Your task to perform on an android device: Show the shopping cart on newegg.com. Search for "usb-a" on newegg.com, select the first entry, add it to the cart, then select checkout. Image 0: 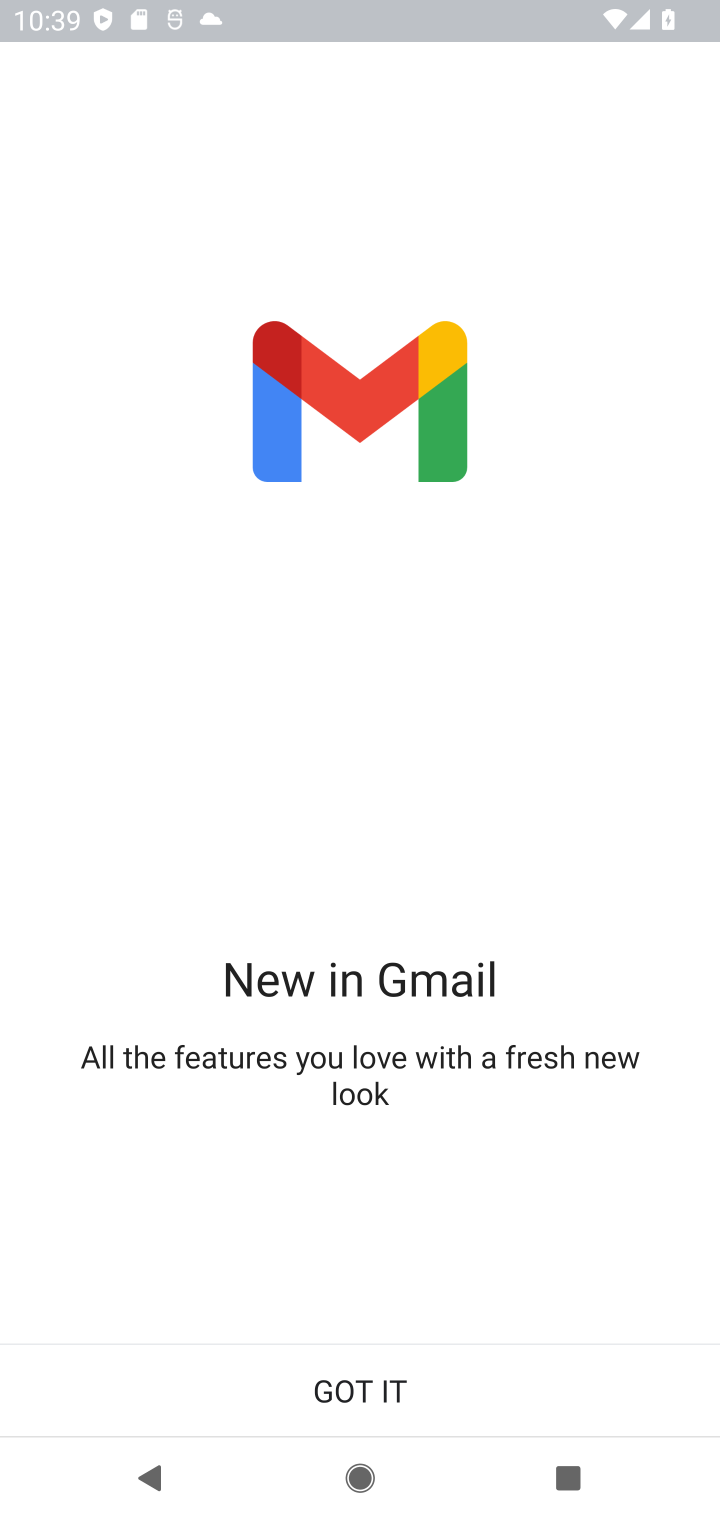
Step 0: press home button
Your task to perform on an android device: Show the shopping cart on newegg.com. Search for "usb-a" on newegg.com, select the first entry, add it to the cart, then select checkout. Image 1: 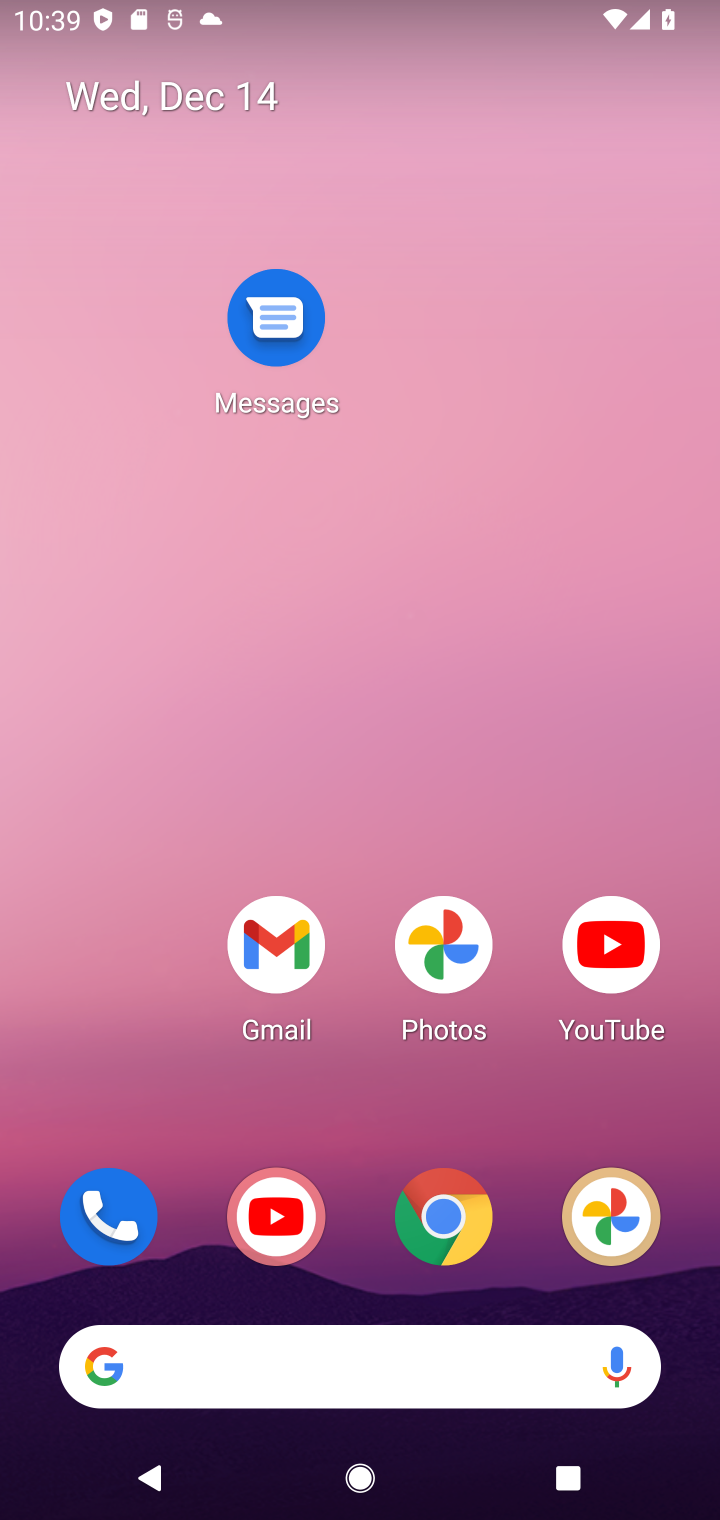
Step 1: drag from (280, 1326) to (216, 431)
Your task to perform on an android device: Show the shopping cart on newegg.com. Search for "usb-a" on newegg.com, select the first entry, add it to the cart, then select checkout. Image 2: 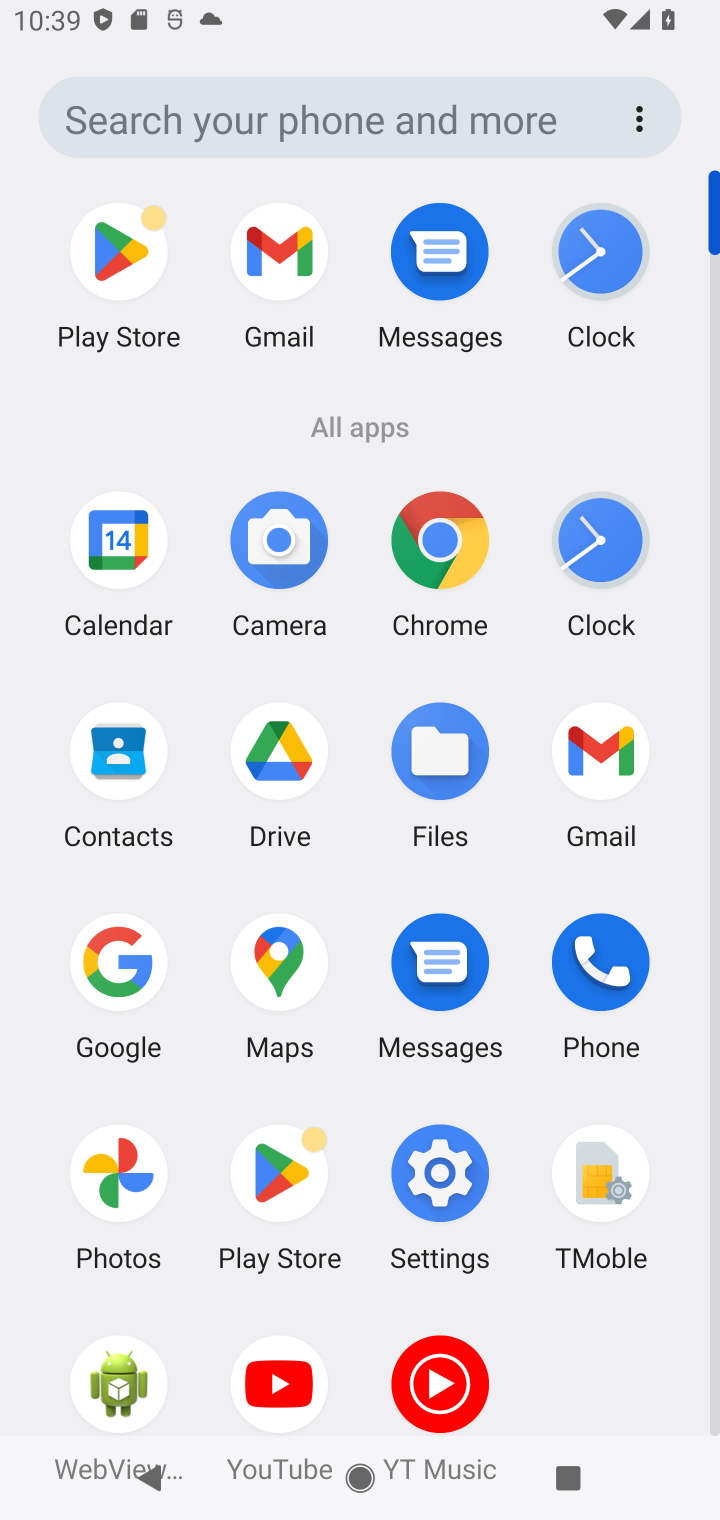
Step 2: click (118, 973)
Your task to perform on an android device: Show the shopping cart on newegg.com. Search for "usb-a" on newegg.com, select the first entry, add it to the cart, then select checkout. Image 3: 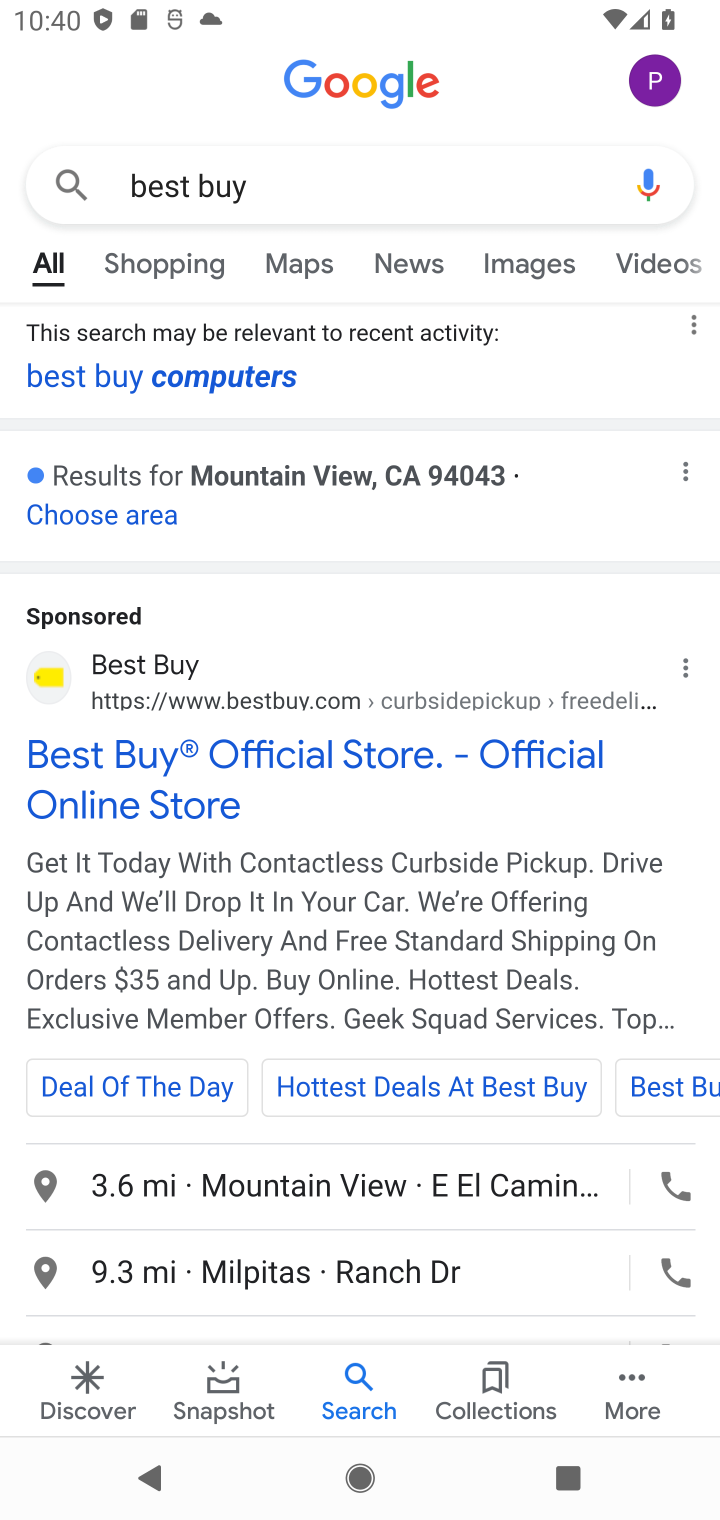
Step 3: click (287, 167)
Your task to perform on an android device: Show the shopping cart on newegg.com. Search for "usb-a" on newegg.com, select the first entry, add it to the cart, then select checkout. Image 4: 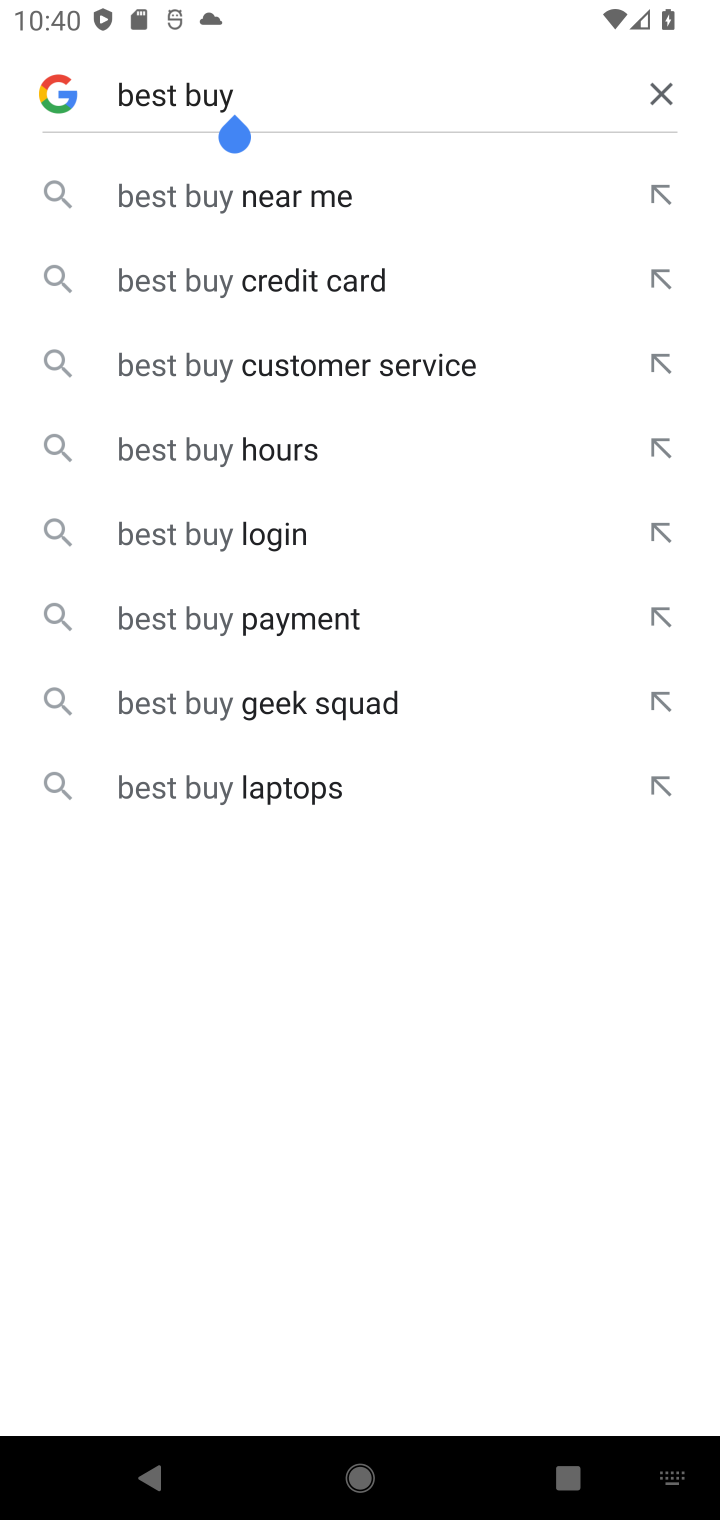
Step 4: click (658, 108)
Your task to perform on an android device: Show the shopping cart on newegg.com. Search for "usb-a" on newegg.com, select the first entry, add it to the cart, then select checkout. Image 5: 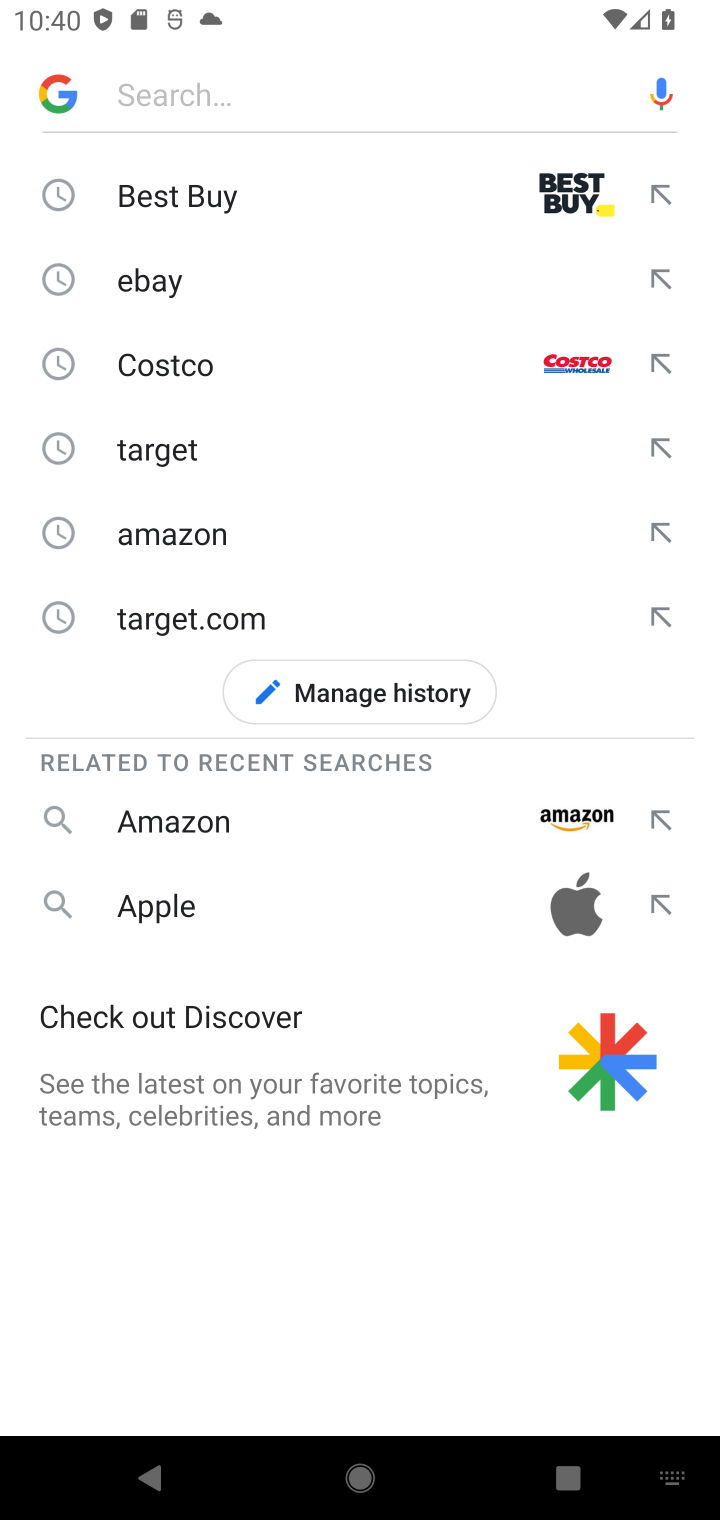
Step 5: type "newegg.com"
Your task to perform on an android device: Show the shopping cart on newegg.com. Search for "usb-a" on newegg.com, select the first entry, add it to the cart, then select checkout. Image 6: 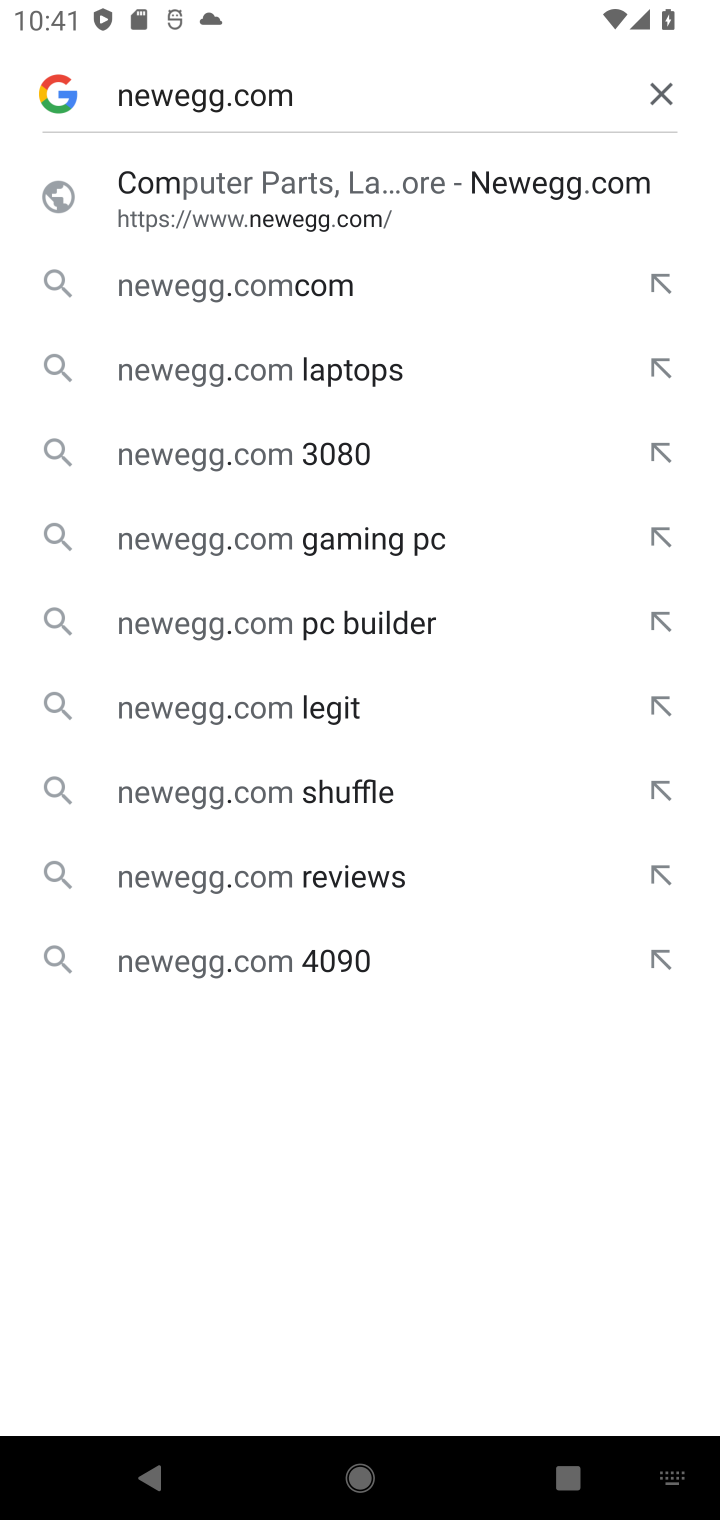
Step 6: click (169, 199)
Your task to perform on an android device: Show the shopping cart on newegg.com. Search for "usb-a" on newegg.com, select the first entry, add it to the cart, then select checkout. Image 7: 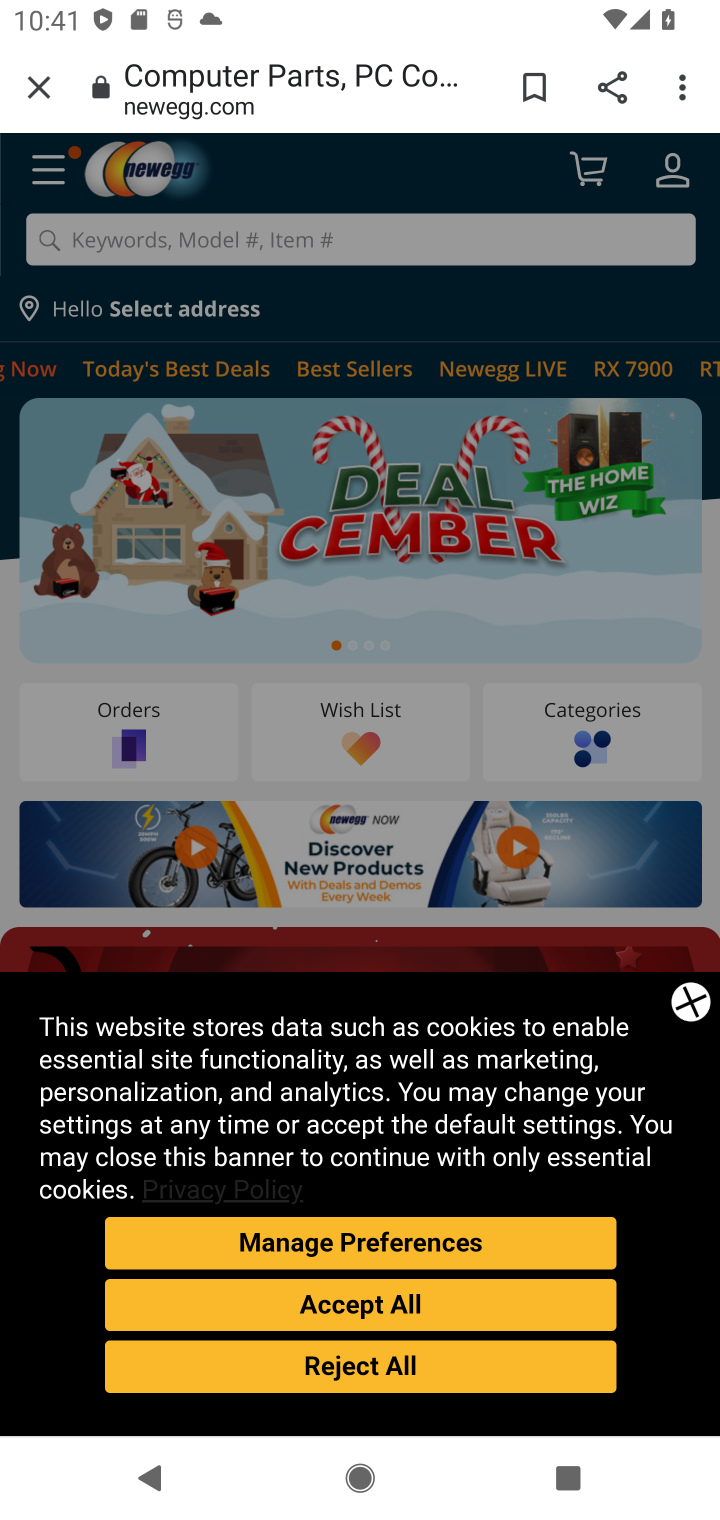
Step 7: click (596, 165)
Your task to perform on an android device: Show the shopping cart on newegg.com. Search for "usb-a" on newegg.com, select the first entry, add it to the cart, then select checkout. Image 8: 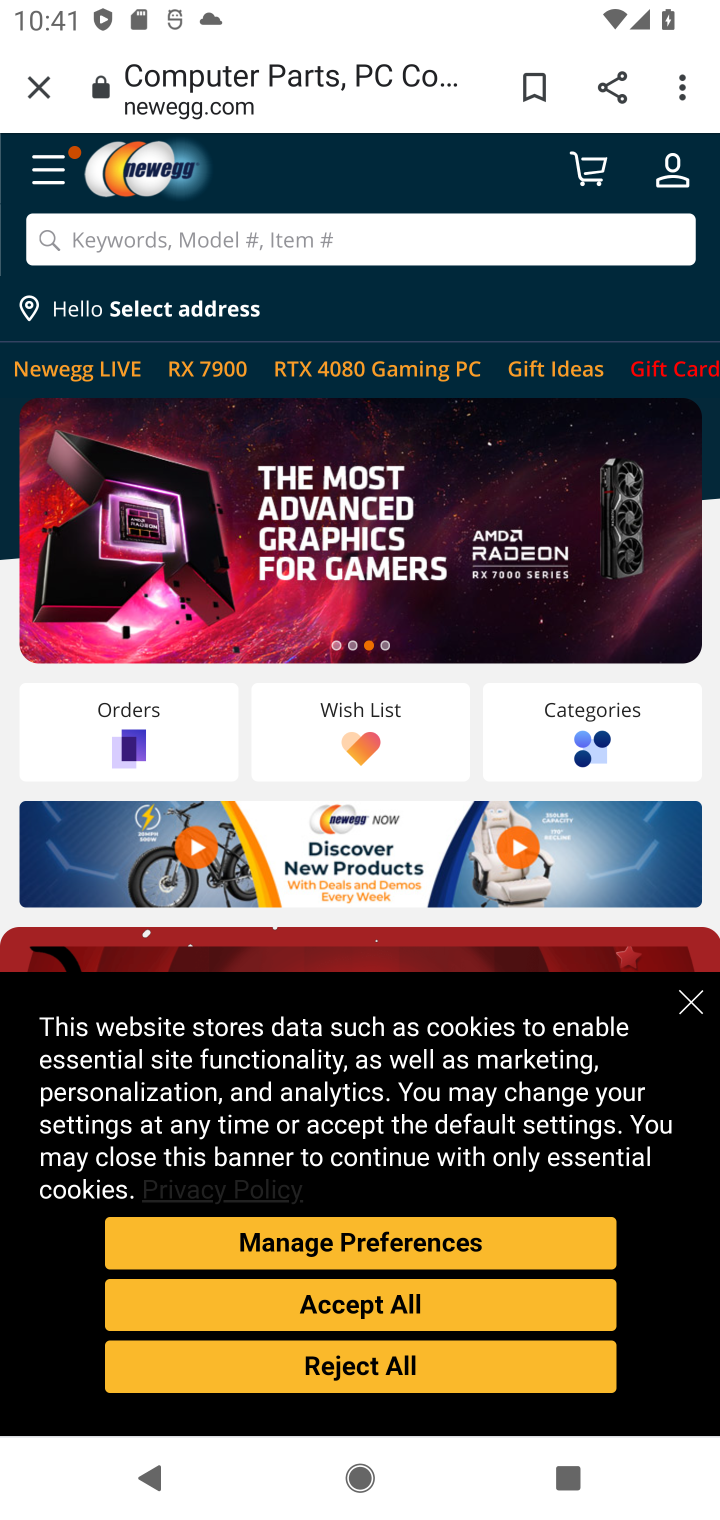
Step 8: click (129, 222)
Your task to perform on an android device: Show the shopping cart on newegg.com. Search for "usb-a" on newegg.com, select the first entry, add it to the cart, then select checkout. Image 9: 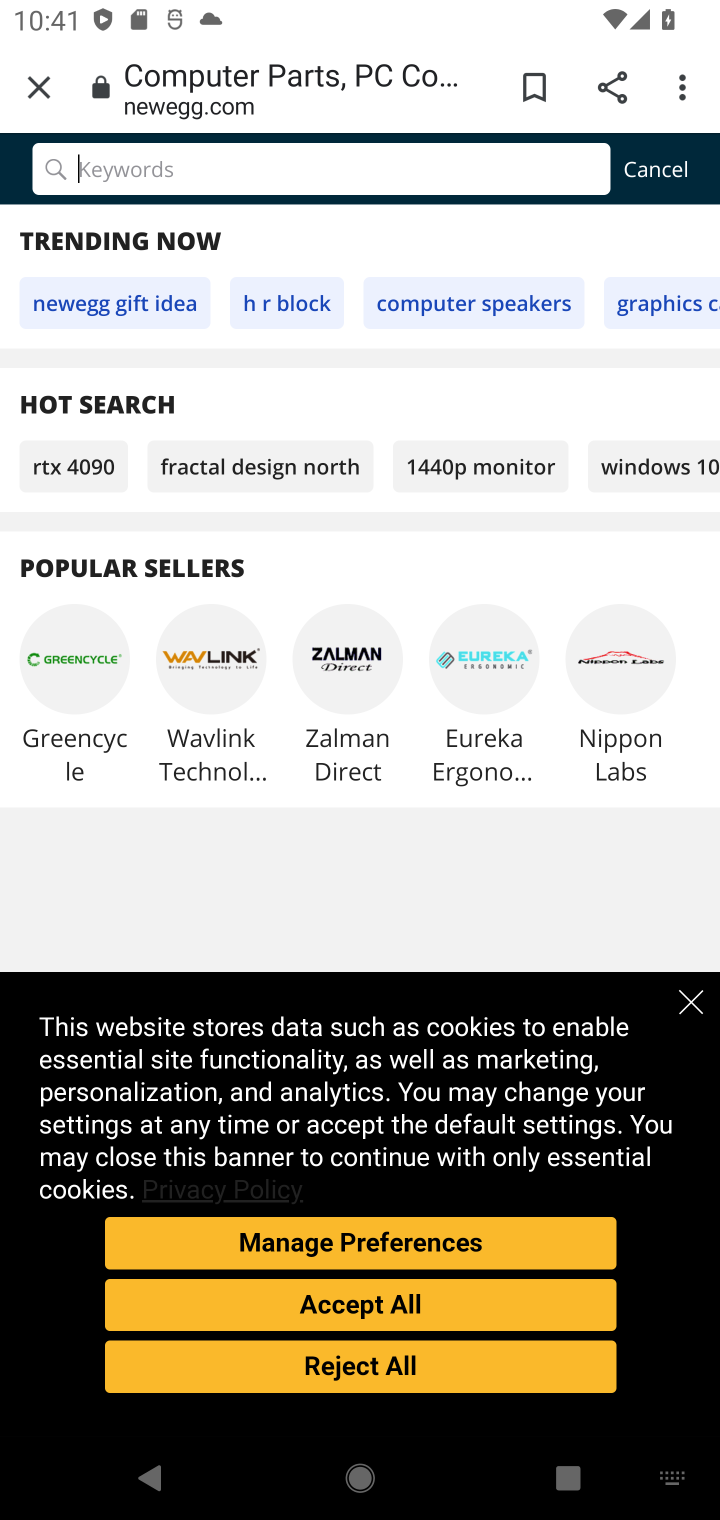
Step 9: type "usb-a"
Your task to perform on an android device: Show the shopping cart on newegg.com. Search for "usb-a" on newegg.com, select the first entry, add it to the cart, then select checkout. Image 10: 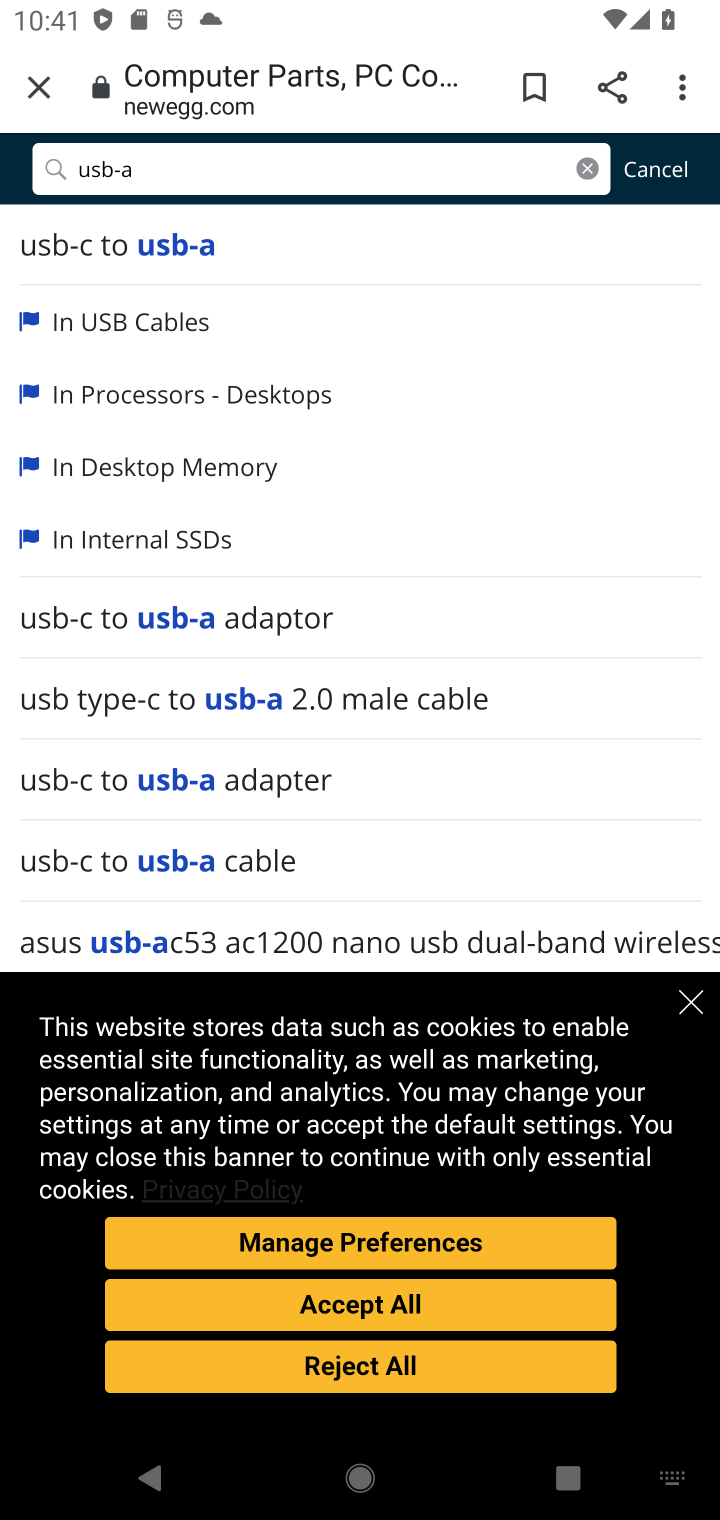
Step 10: click (144, 255)
Your task to perform on an android device: Show the shopping cart on newegg.com. Search for "usb-a" on newegg.com, select the first entry, add it to the cart, then select checkout. Image 11: 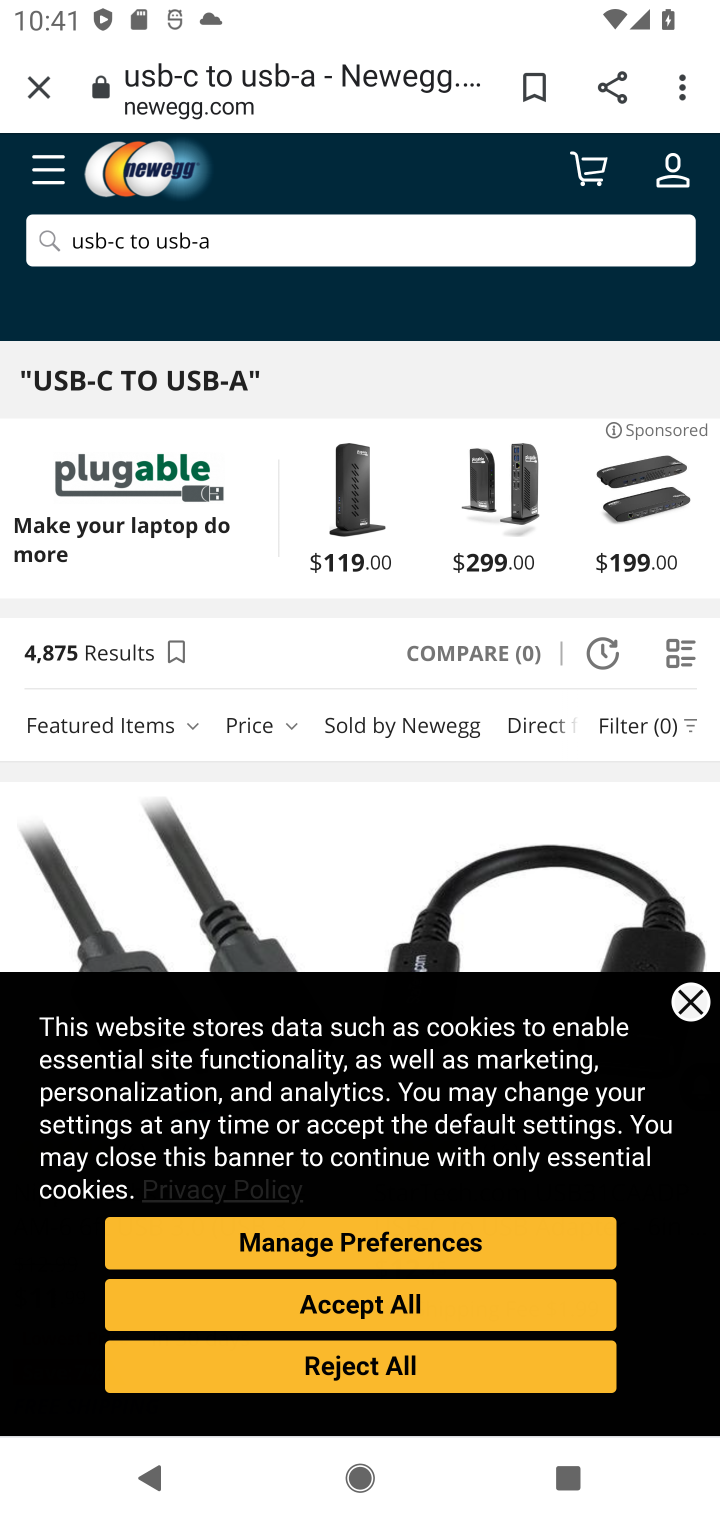
Step 11: drag from (214, 1271) to (252, 692)
Your task to perform on an android device: Show the shopping cart on newegg.com. Search for "usb-a" on newegg.com, select the first entry, add it to the cart, then select checkout. Image 12: 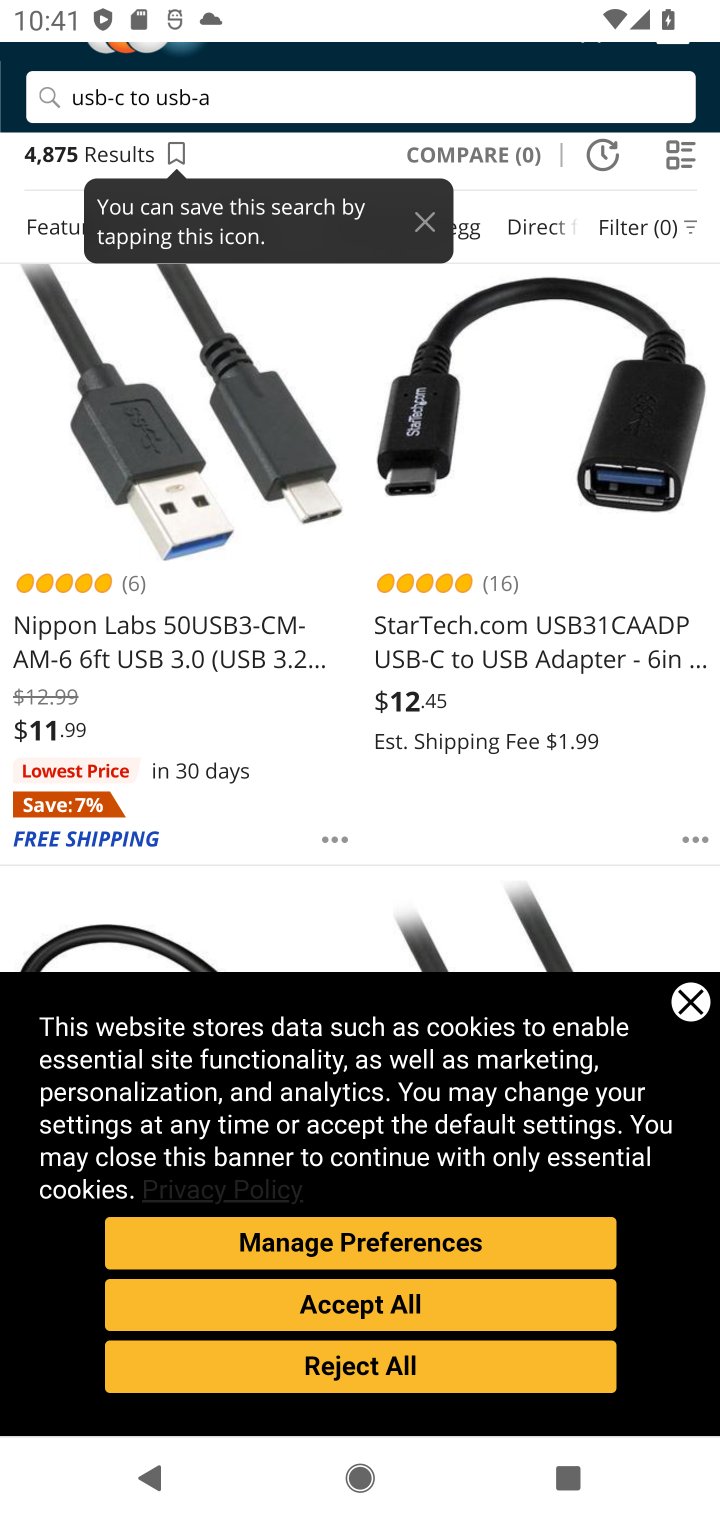
Step 12: click (703, 1003)
Your task to perform on an android device: Show the shopping cart on newegg.com. Search for "usb-a" on newegg.com, select the first entry, add it to the cart, then select checkout. Image 13: 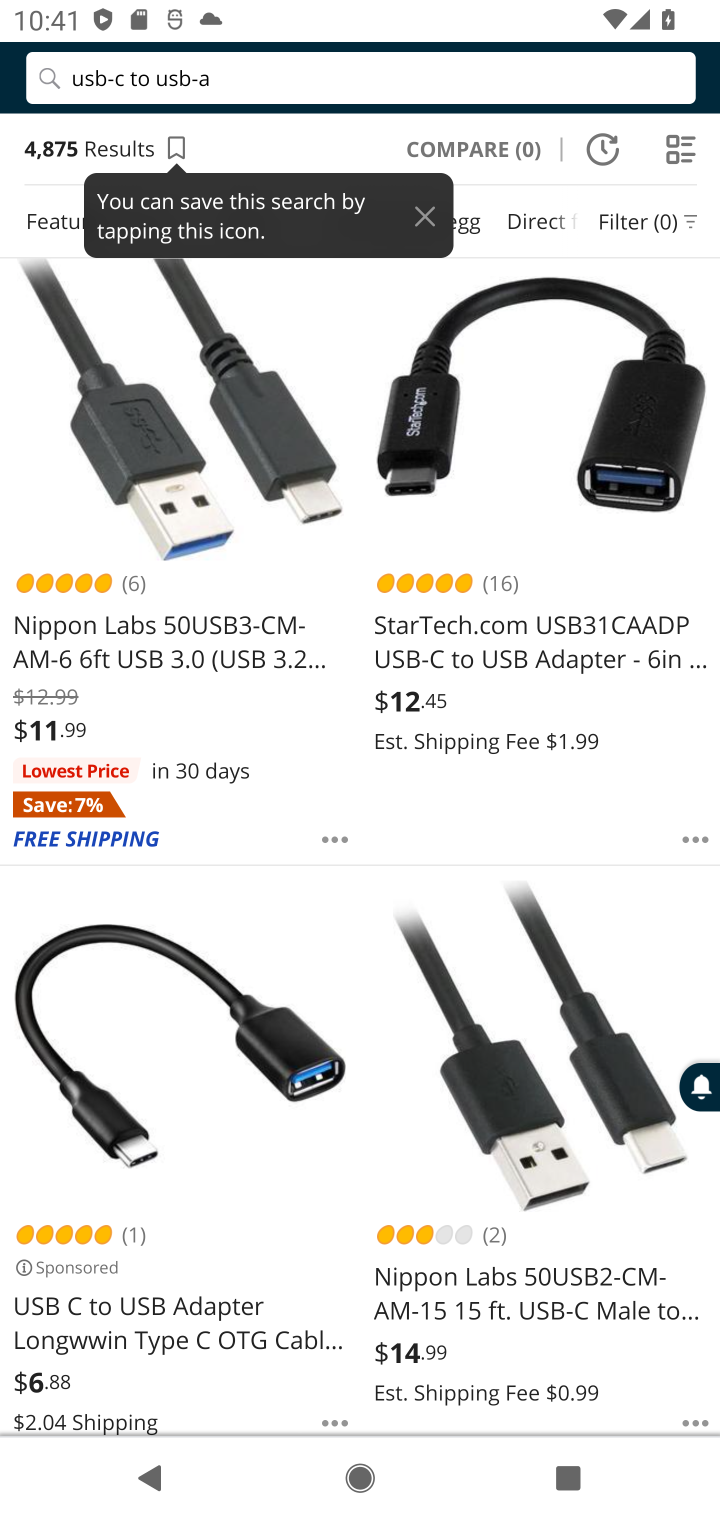
Step 13: click (223, 617)
Your task to perform on an android device: Show the shopping cart on newegg.com. Search for "usb-a" on newegg.com, select the first entry, add it to the cart, then select checkout. Image 14: 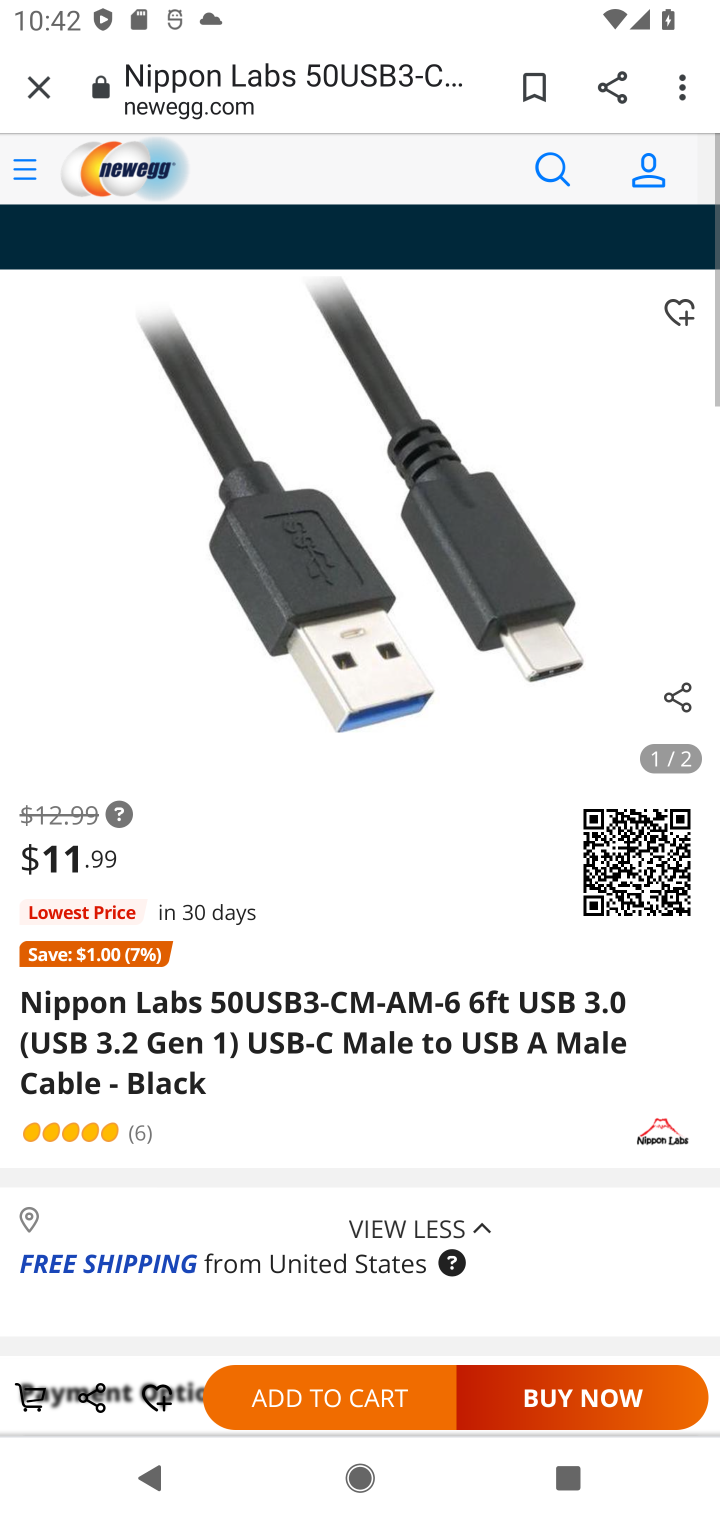
Step 14: drag from (374, 1182) to (400, 589)
Your task to perform on an android device: Show the shopping cart on newegg.com. Search for "usb-a" on newegg.com, select the first entry, add it to the cart, then select checkout. Image 15: 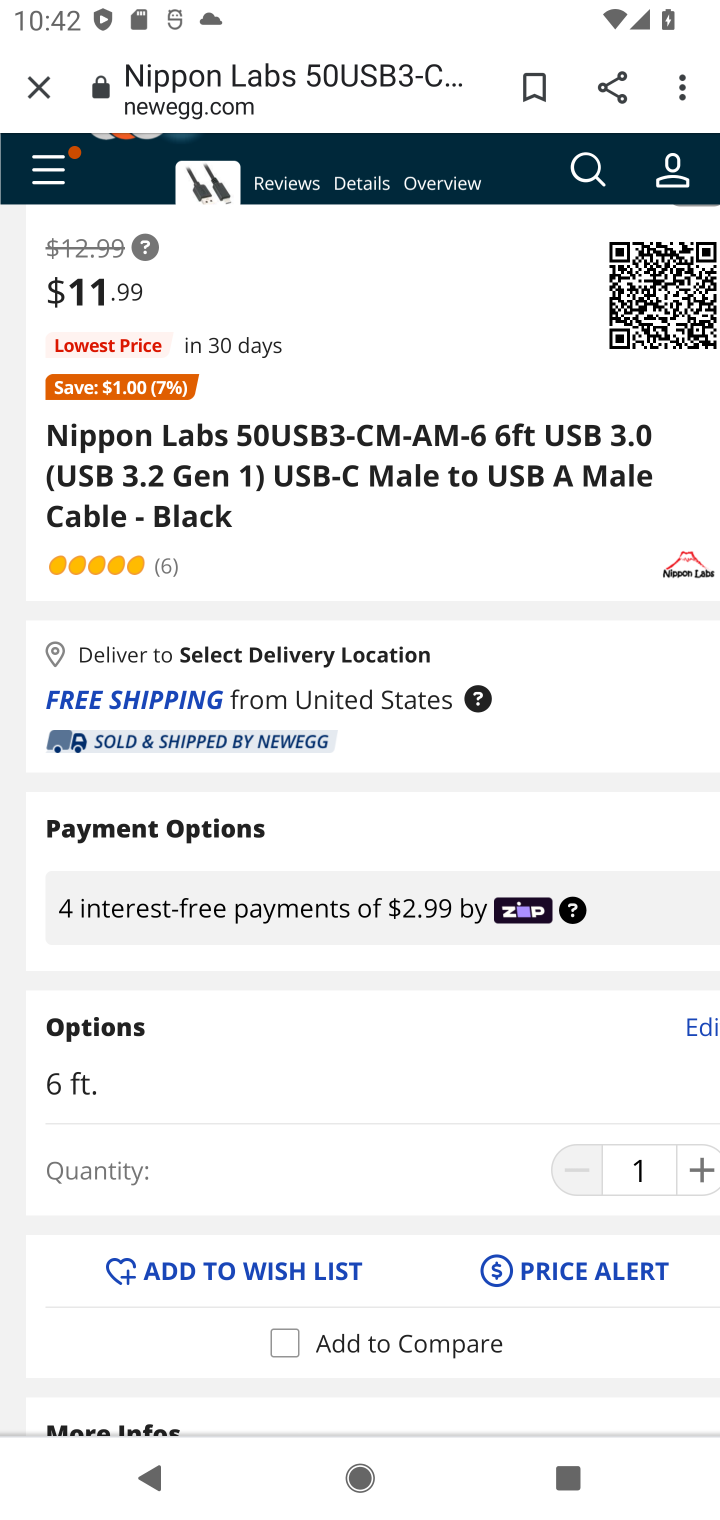
Step 15: click (333, 1399)
Your task to perform on an android device: Show the shopping cart on newegg.com. Search for "usb-a" on newegg.com, select the first entry, add it to the cart, then select checkout. Image 16: 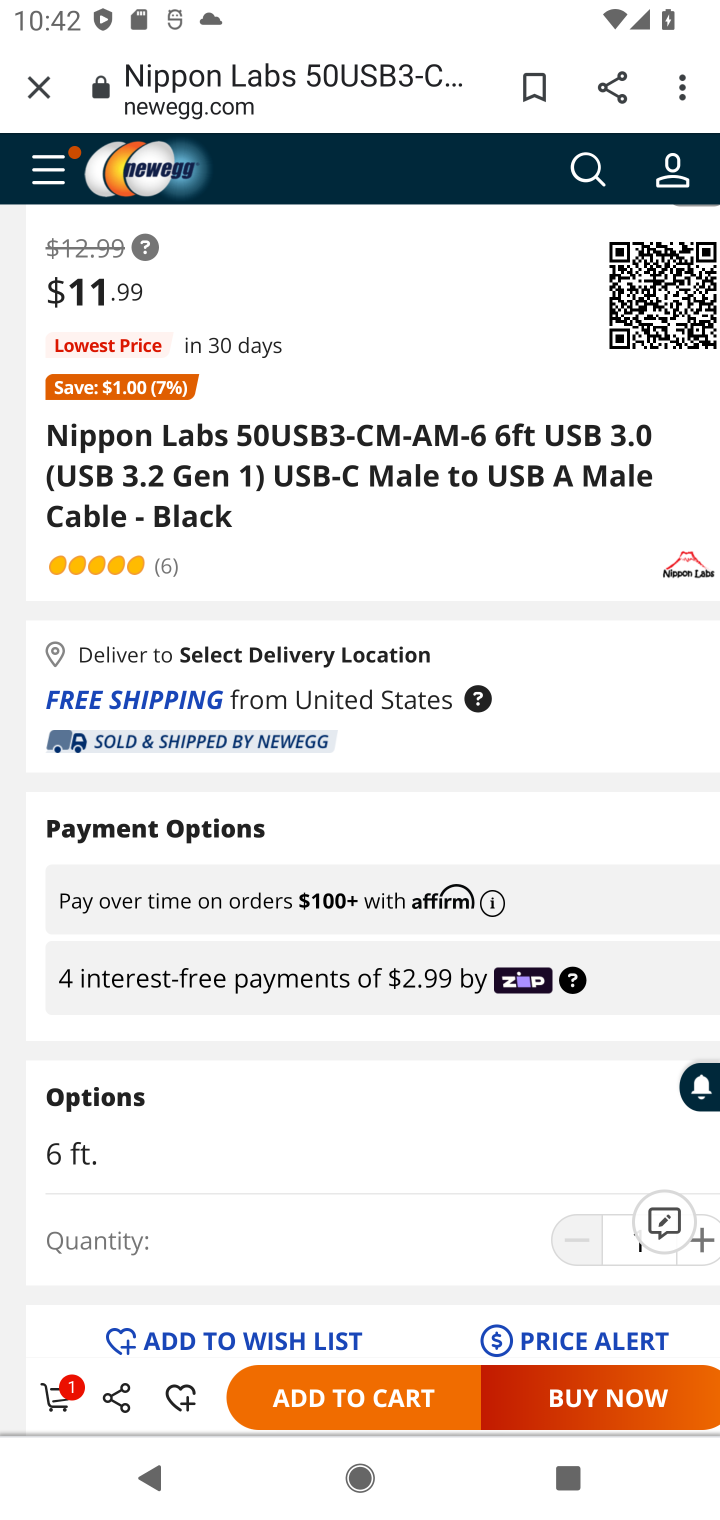
Step 16: click (60, 1399)
Your task to perform on an android device: Show the shopping cart on newegg.com. Search for "usb-a" on newegg.com, select the first entry, add it to the cart, then select checkout. Image 17: 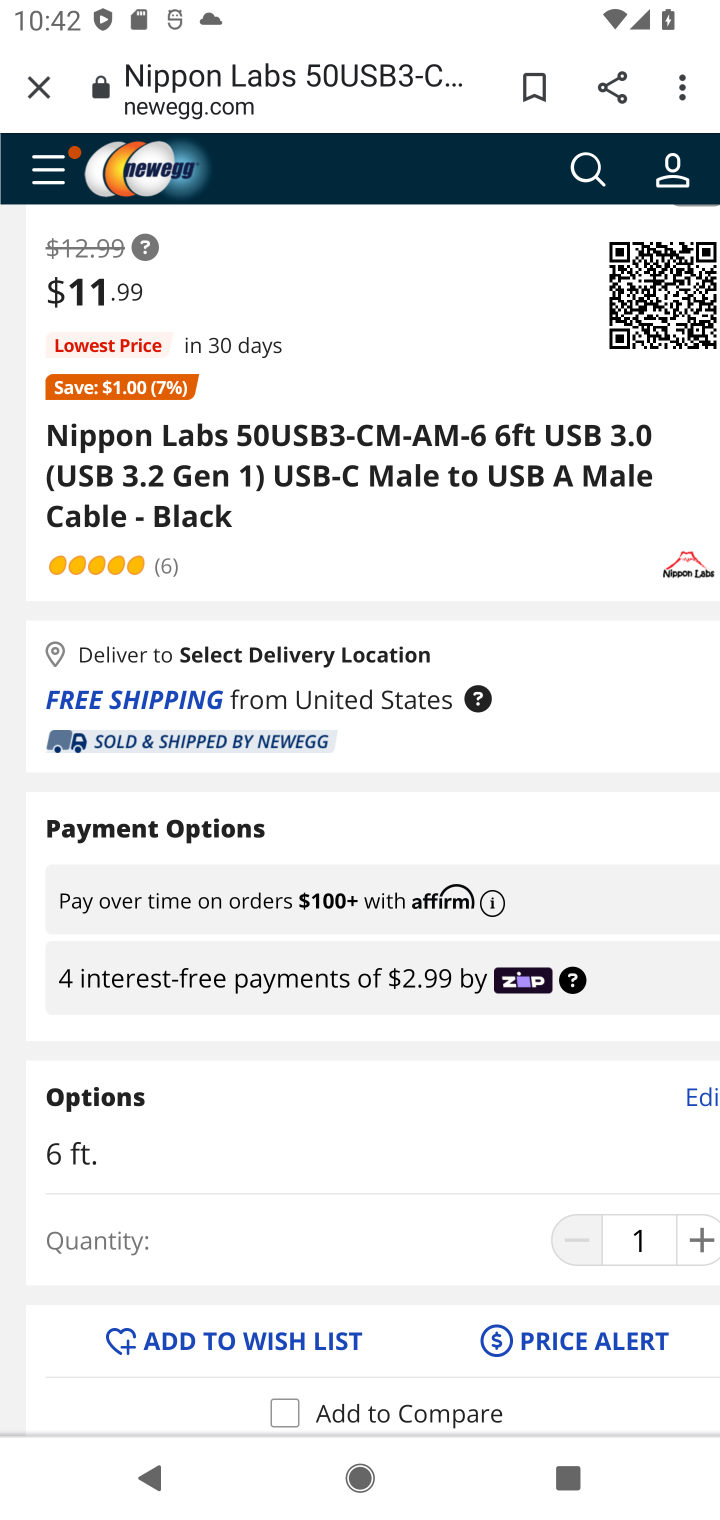
Step 17: click (56, 1394)
Your task to perform on an android device: Show the shopping cart on newegg.com. Search for "usb-a" on newegg.com, select the first entry, add it to the cart, then select checkout. Image 18: 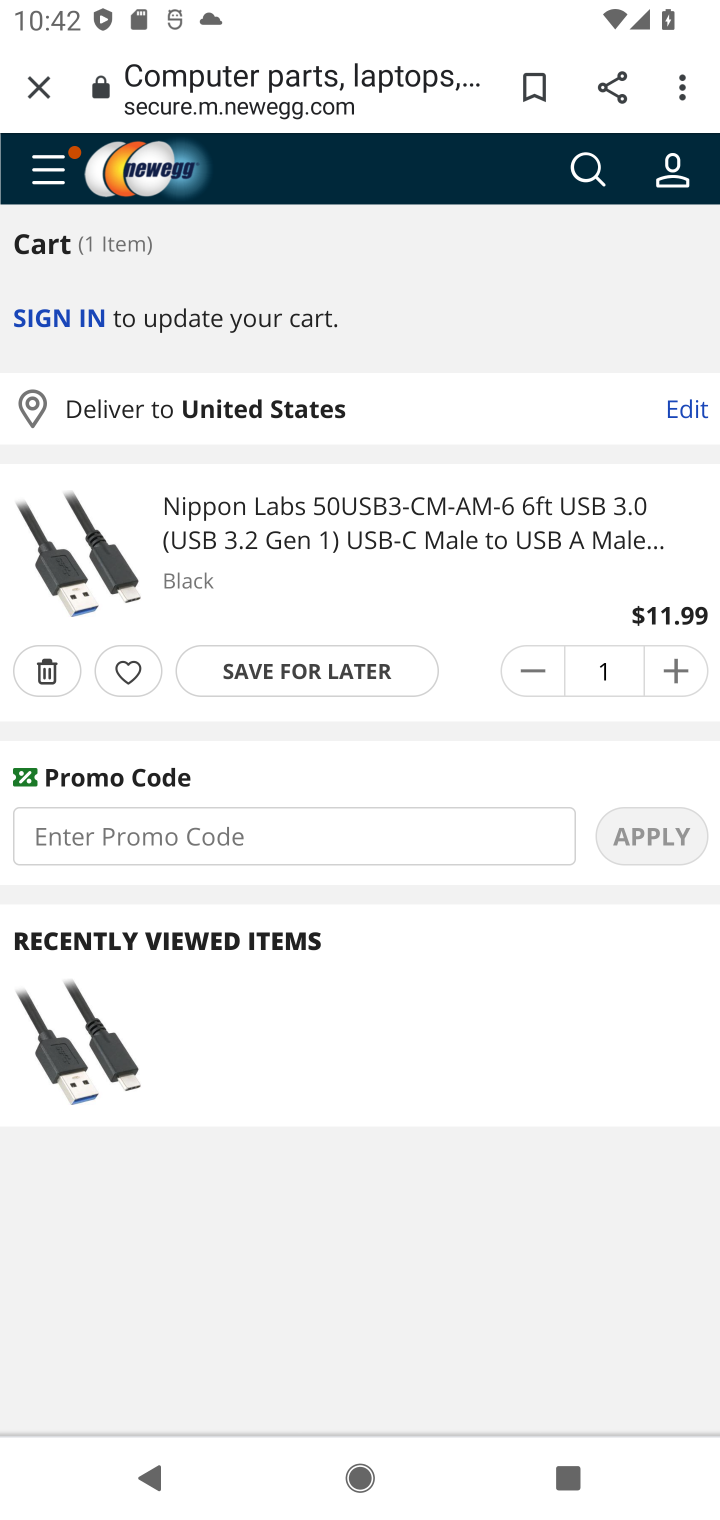
Step 18: click (320, 1006)
Your task to perform on an android device: Show the shopping cart on newegg.com. Search for "usb-a" on newegg.com, select the first entry, add it to the cart, then select checkout. Image 19: 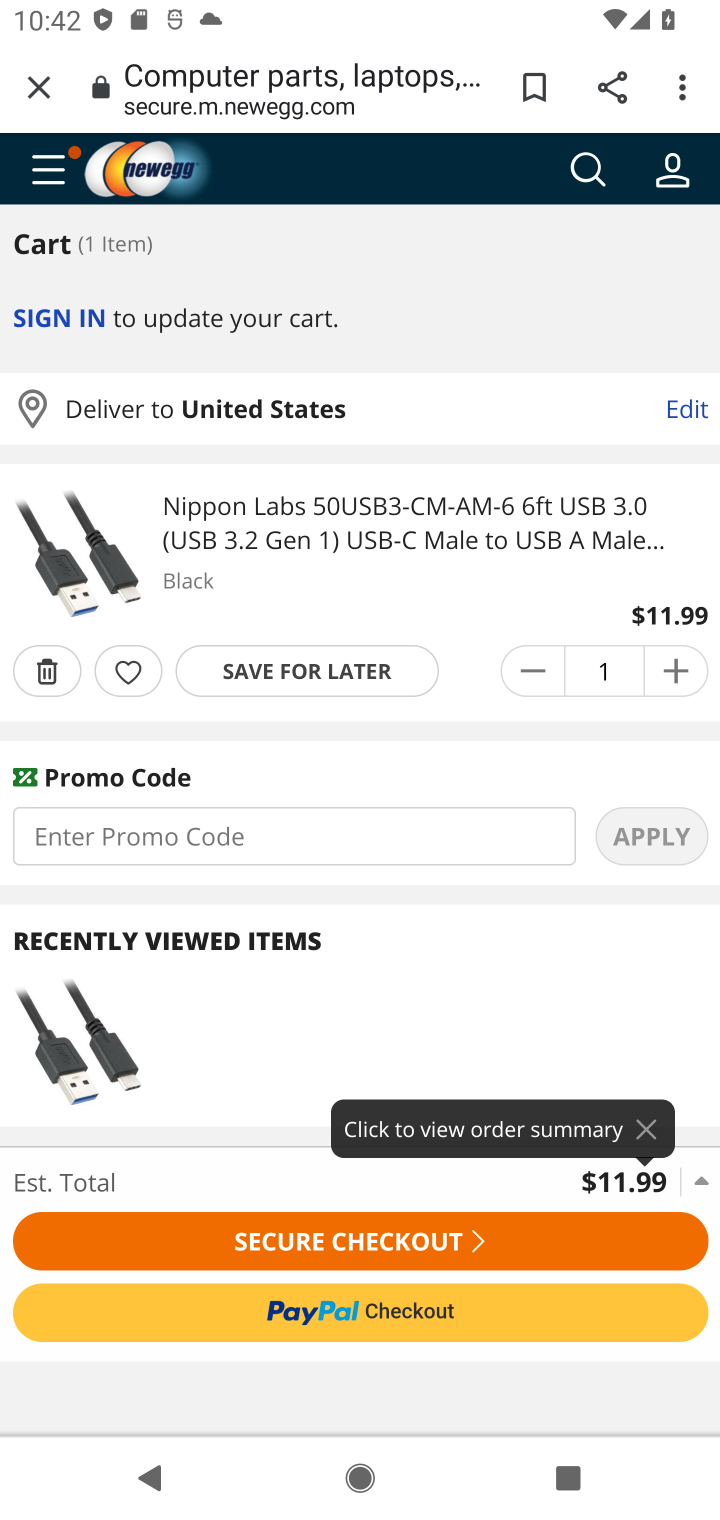
Step 19: click (316, 1249)
Your task to perform on an android device: Show the shopping cart on newegg.com. Search for "usb-a" on newegg.com, select the first entry, add it to the cart, then select checkout. Image 20: 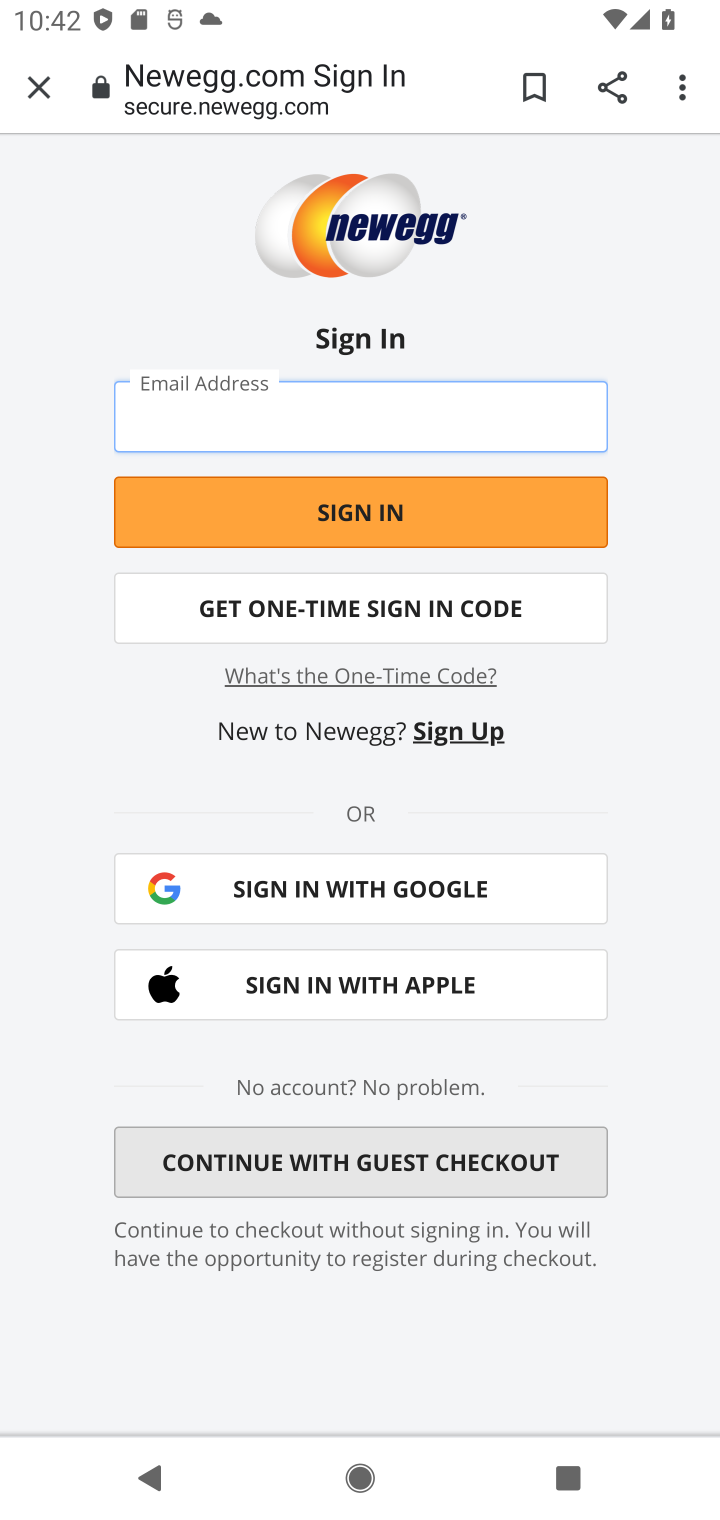
Step 20: task complete